Your task to perform on an android device: Turn off the flashlight Image 0: 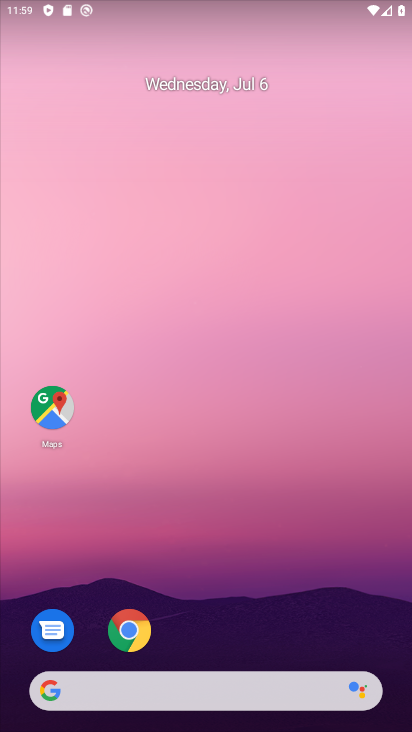
Step 0: click (278, 674)
Your task to perform on an android device: Turn off the flashlight Image 1: 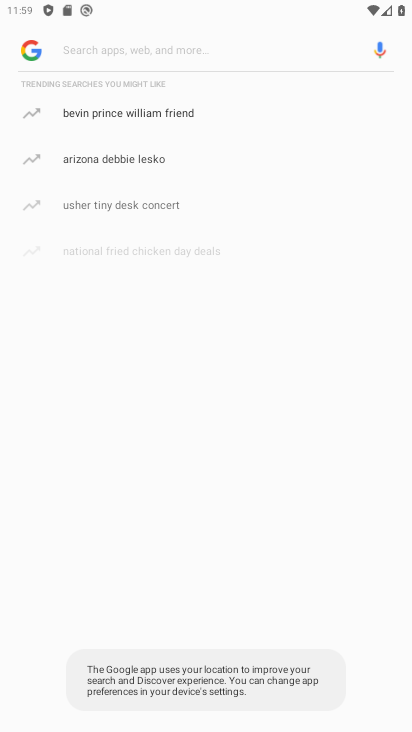
Step 1: task complete